Your task to perform on an android device: What's a good restaurant in New Jersey? Image 0: 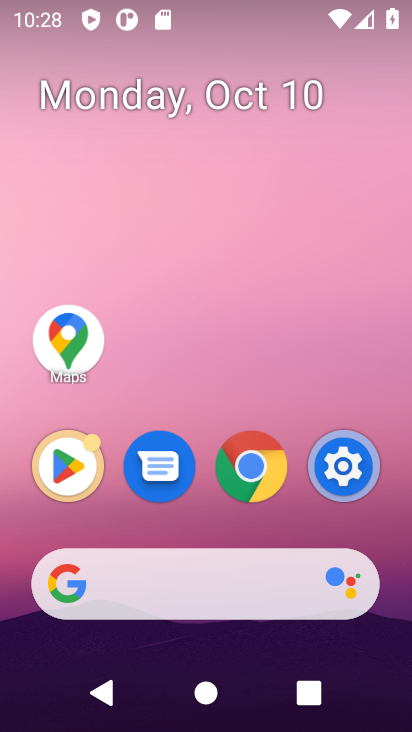
Step 0: click (71, 578)
Your task to perform on an android device: What's a good restaurant in New Jersey? Image 1: 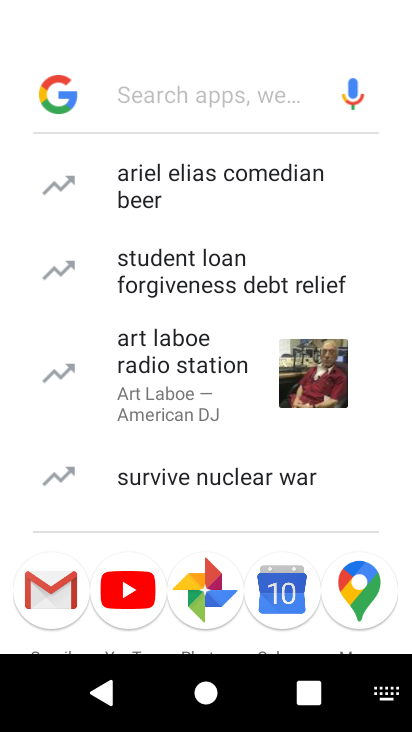
Step 1: type "good restaurant in New Jersey"
Your task to perform on an android device: What's a good restaurant in New Jersey? Image 2: 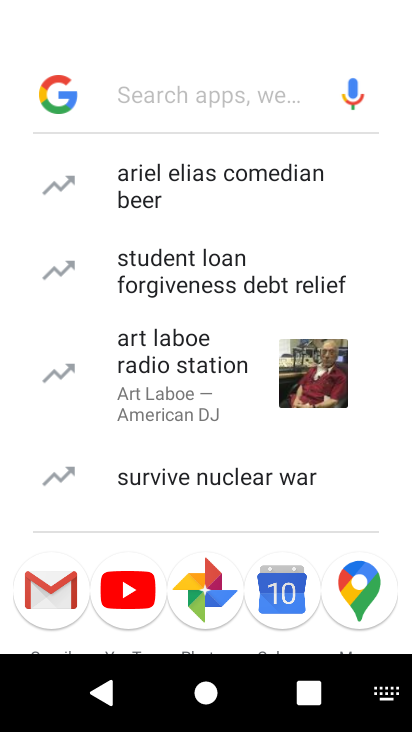
Step 2: click (105, 94)
Your task to perform on an android device: What's a good restaurant in New Jersey? Image 3: 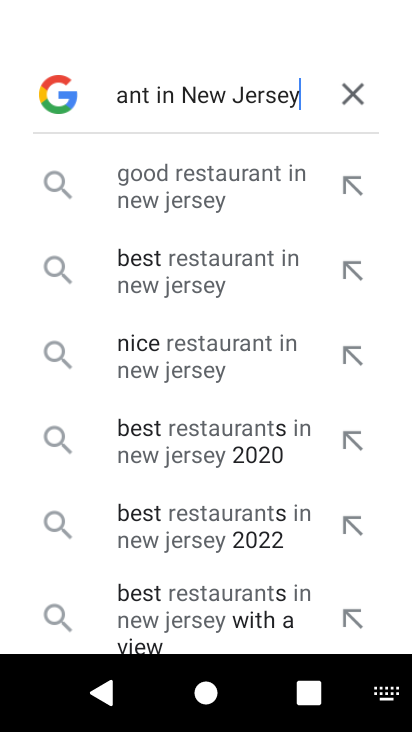
Step 3: click (202, 94)
Your task to perform on an android device: What's a good restaurant in New Jersey? Image 4: 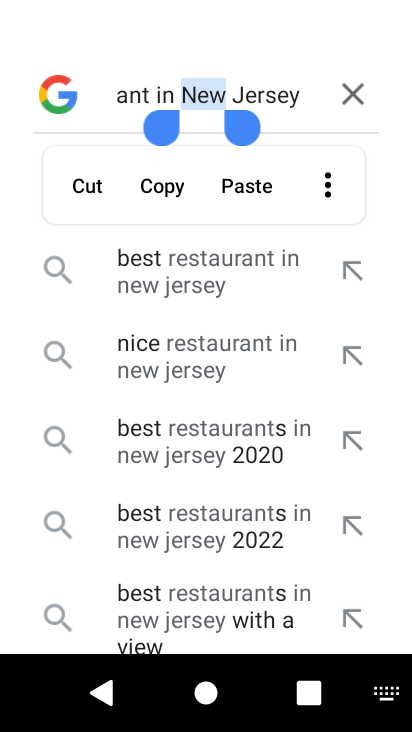
Step 4: press enter
Your task to perform on an android device: What's a good restaurant in New Jersey? Image 5: 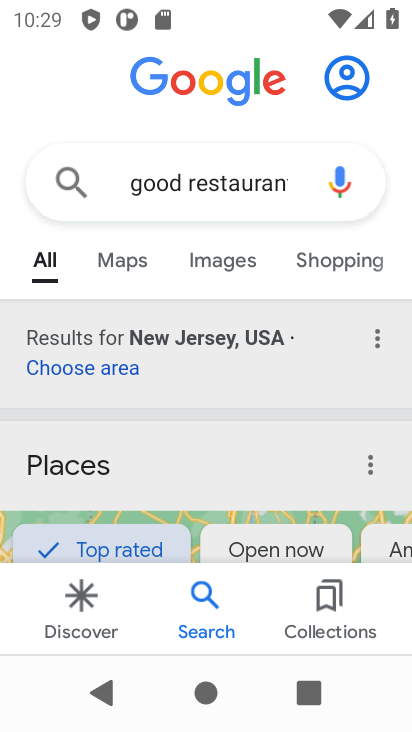
Step 5: task complete